Your task to perform on an android device: Go to Android settings Image 0: 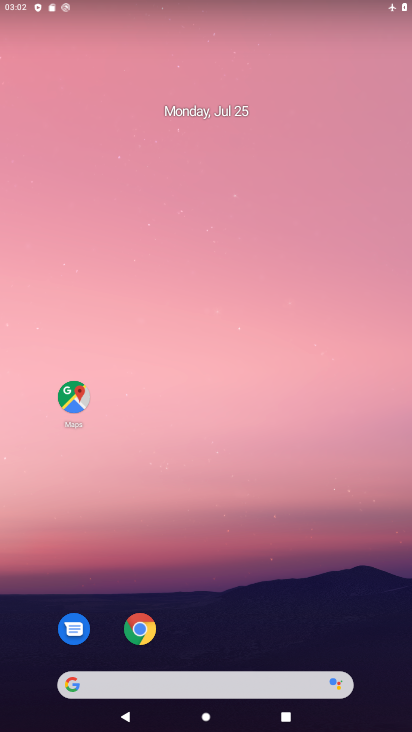
Step 0: drag from (257, 652) to (286, 2)
Your task to perform on an android device: Go to Android settings Image 1: 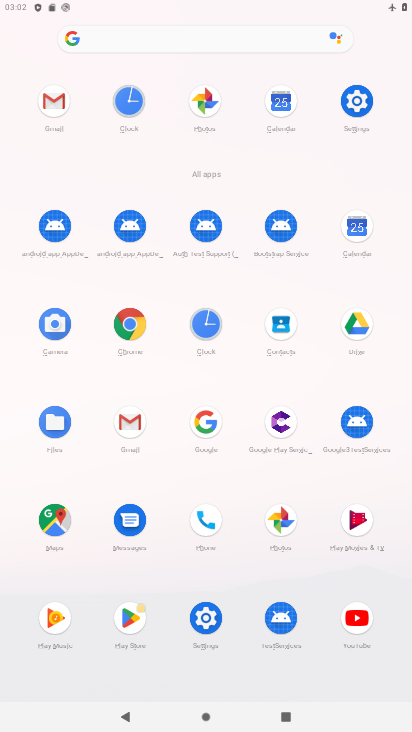
Step 1: click (357, 102)
Your task to perform on an android device: Go to Android settings Image 2: 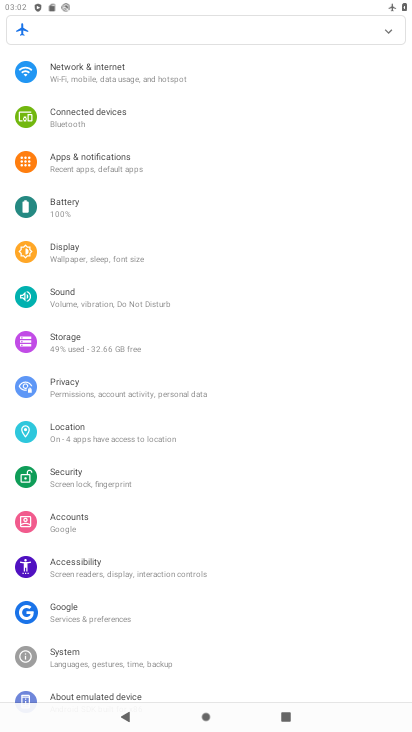
Step 2: task complete